Your task to perform on an android device: change the upload size in google photos Image 0: 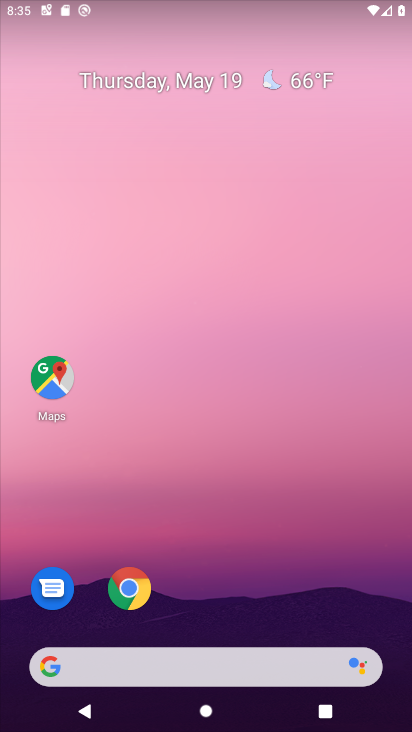
Step 0: drag from (344, 596) to (330, 143)
Your task to perform on an android device: change the upload size in google photos Image 1: 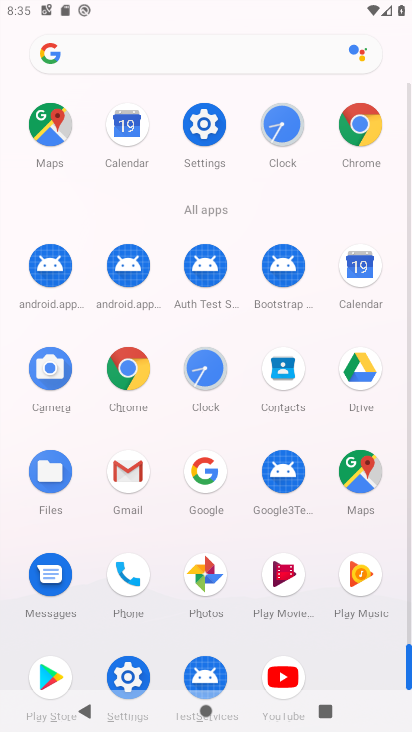
Step 1: click (213, 590)
Your task to perform on an android device: change the upload size in google photos Image 2: 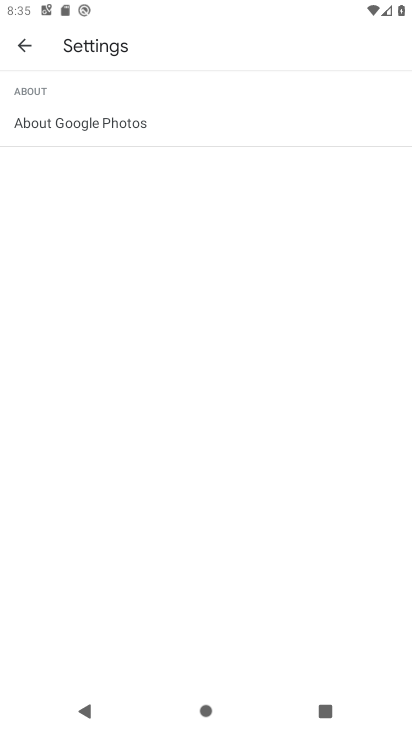
Step 2: click (16, 49)
Your task to perform on an android device: change the upload size in google photos Image 3: 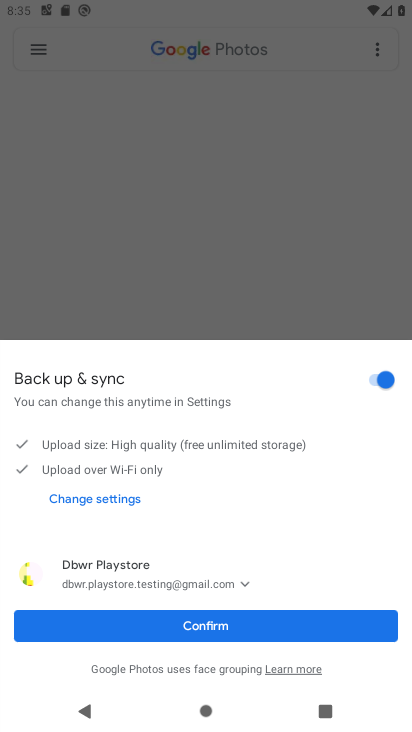
Step 3: click (276, 623)
Your task to perform on an android device: change the upload size in google photos Image 4: 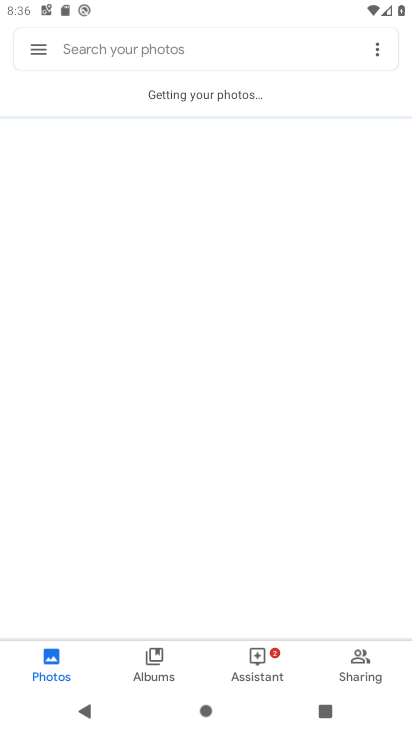
Step 4: click (41, 46)
Your task to perform on an android device: change the upload size in google photos Image 5: 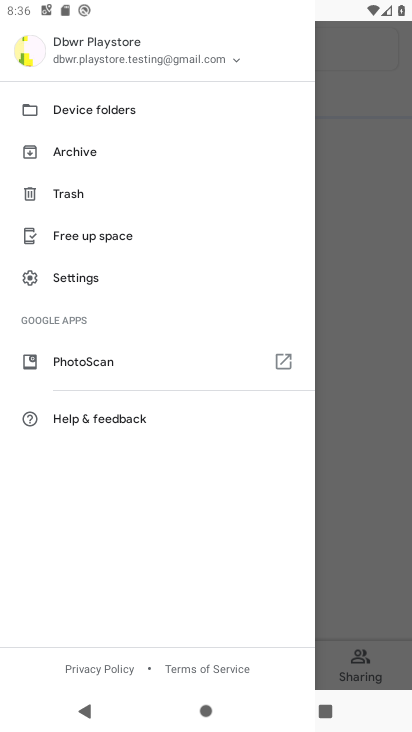
Step 5: drag from (212, 542) to (196, 293)
Your task to perform on an android device: change the upload size in google photos Image 6: 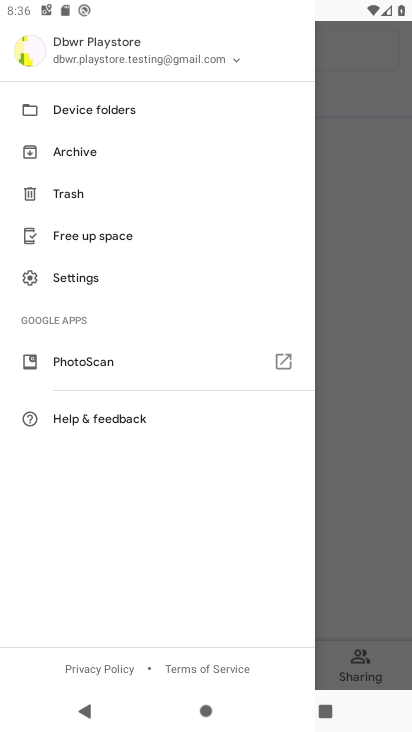
Step 6: click (95, 283)
Your task to perform on an android device: change the upload size in google photos Image 7: 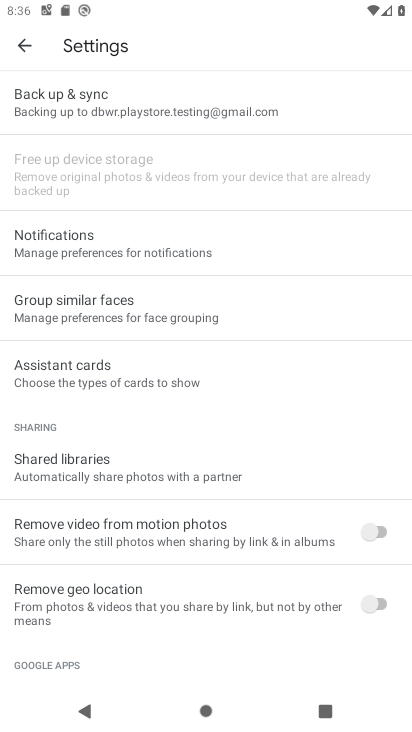
Step 7: drag from (249, 562) to (260, 373)
Your task to perform on an android device: change the upload size in google photos Image 8: 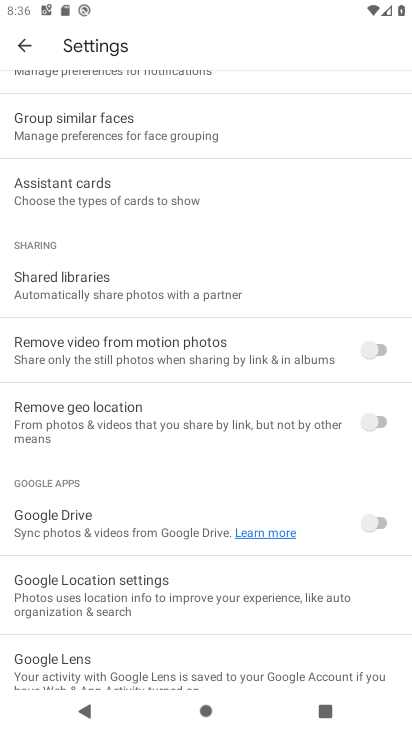
Step 8: drag from (287, 584) to (287, 392)
Your task to perform on an android device: change the upload size in google photos Image 9: 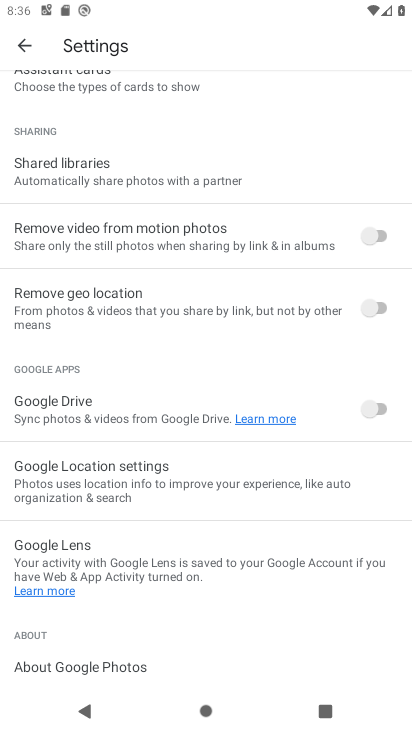
Step 9: drag from (294, 341) to (286, 454)
Your task to perform on an android device: change the upload size in google photos Image 10: 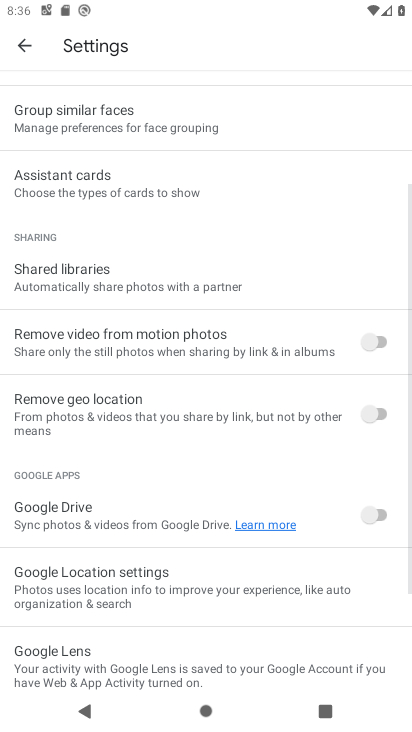
Step 10: drag from (296, 256) to (277, 411)
Your task to perform on an android device: change the upload size in google photos Image 11: 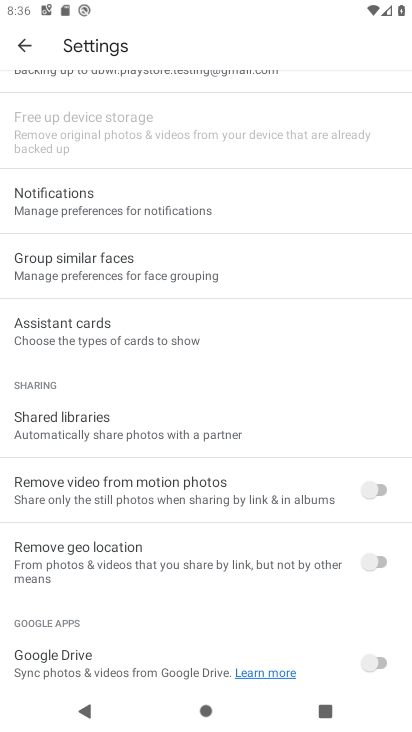
Step 11: drag from (284, 275) to (289, 403)
Your task to perform on an android device: change the upload size in google photos Image 12: 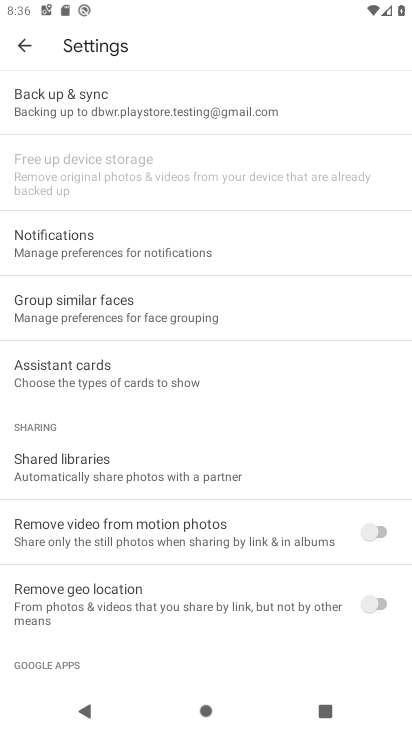
Step 12: click (185, 115)
Your task to perform on an android device: change the upload size in google photos Image 13: 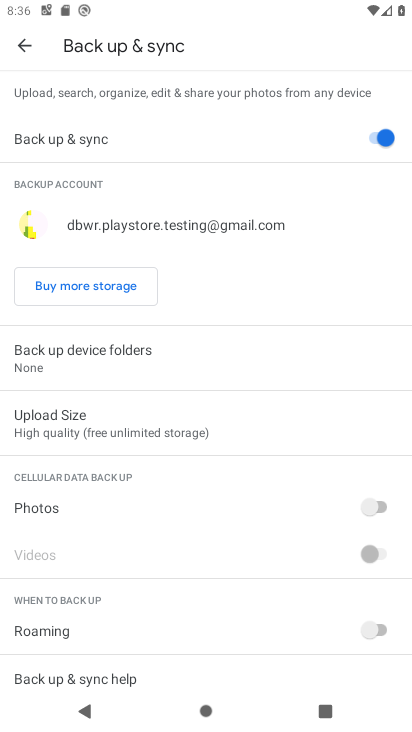
Step 13: drag from (245, 549) to (262, 493)
Your task to perform on an android device: change the upload size in google photos Image 14: 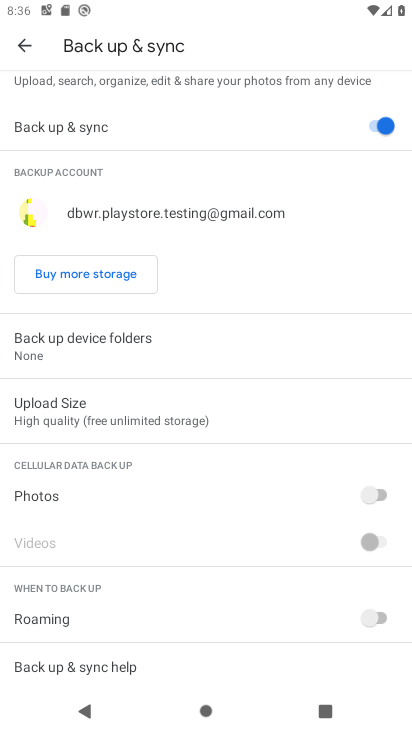
Step 14: click (195, 414)
Your task to perform on an android device: change the upload size in google photos Image 15: 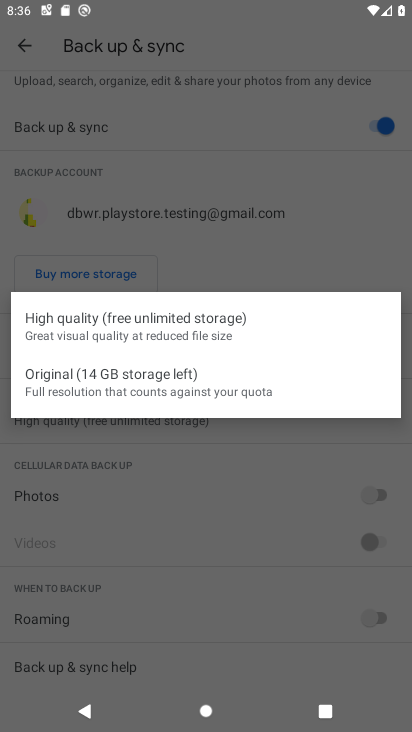
Step 15: click (147, 375)
Your task to perform on an android device: change the upload size in google photos Image 16: 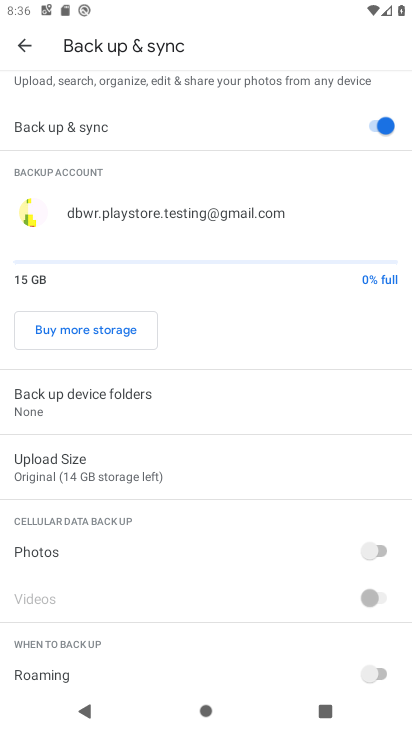
Step 16: task complete